Your task to perform on an android device: set the timer Image 0: 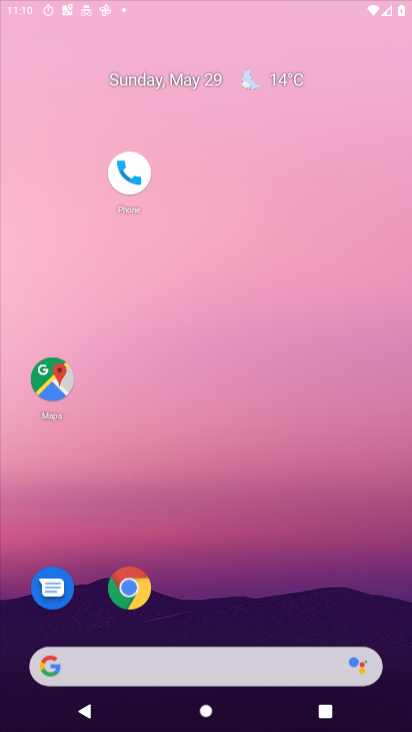
Step 0: drag from (276, 336) to (276, 166)
Your task to perform on an android device: set the timer Image 1: 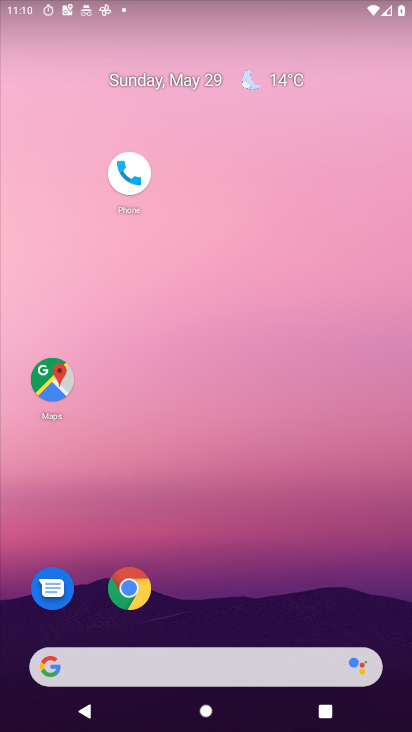
Step 1: drag from (245, 685) to (190, 268)
Your task to perform on an android device: set the timer Image 2: 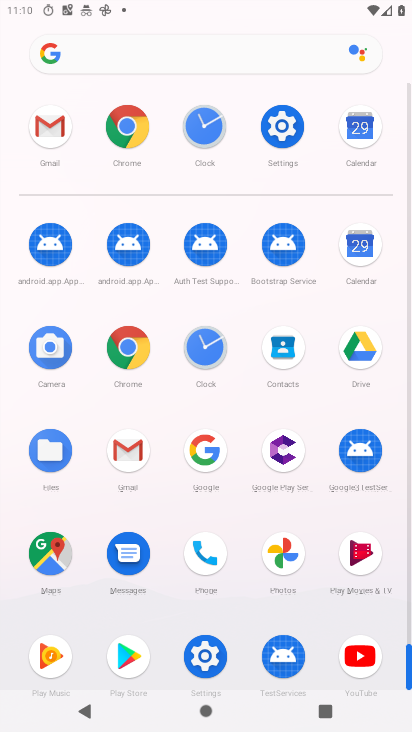
Step 2: click (195, 353)
Your task to perform on an android device: set the timer Image 3: 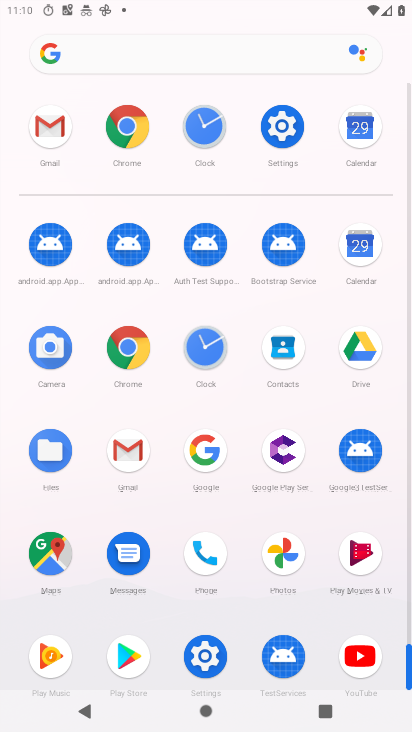
Step 3: click (195, 353)
Your task to perform on an android device: set the timer Image 4: 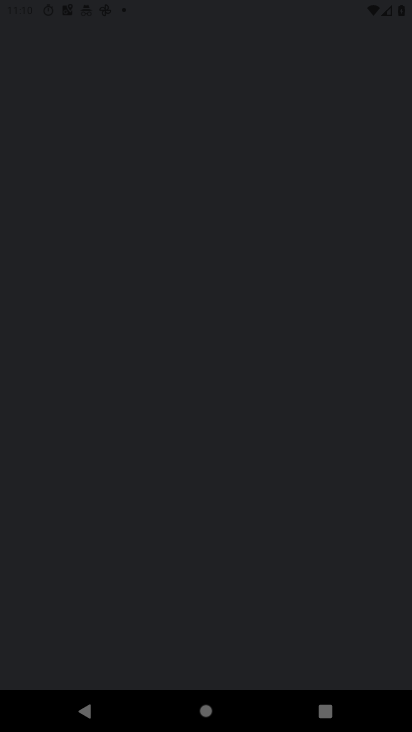
Step 4: click (196, 346)
Your task to perform on an android device: set the timer Image 5: 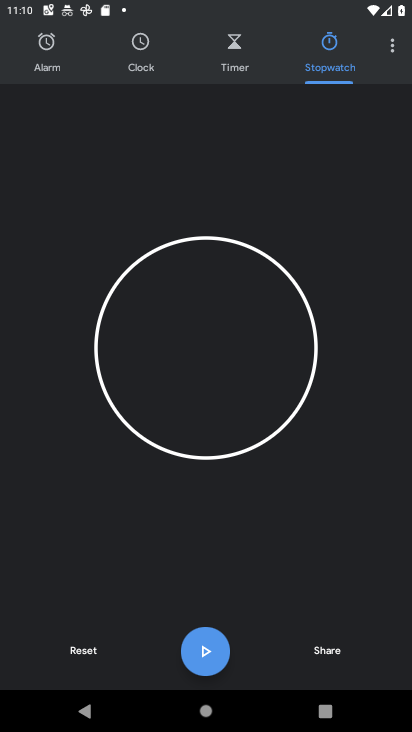
Step 5: click (230, 52)
Your task to perform on an android device: set the timer Image 6: 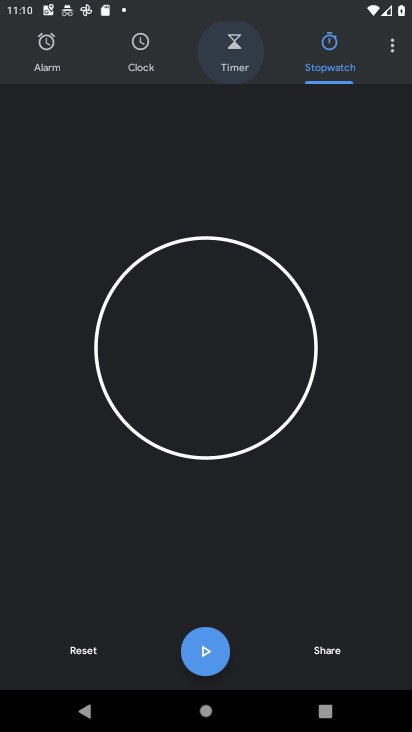
Step 6: click (230, 51)
Your task to perform on an android device: set the timer Image 7: 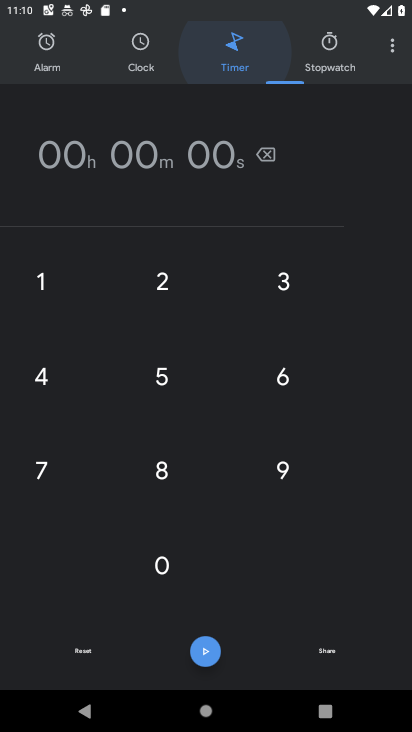
Step 7: click (233, 51)
Your task to perform on an android device: set the timer Image 8: 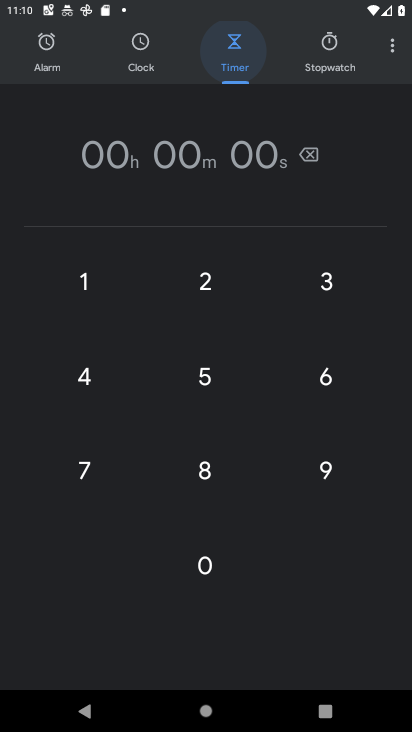
Step 8: click (233, 51)
Your task to perform on an android device: set the timer Image 9: 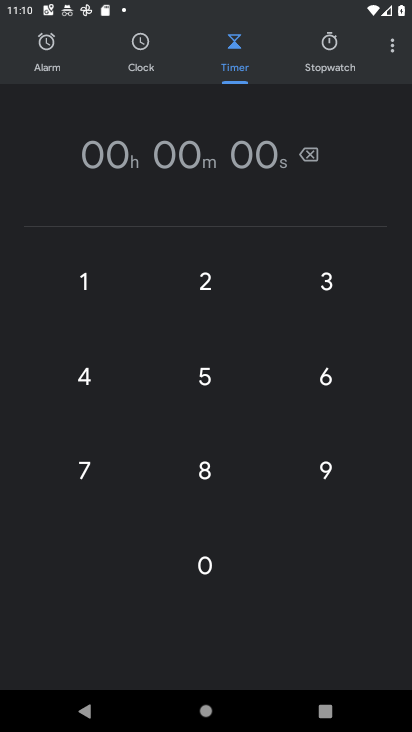
Step 9: click (204, 477)
Your task to perform on an android device: set the timer Image 10: 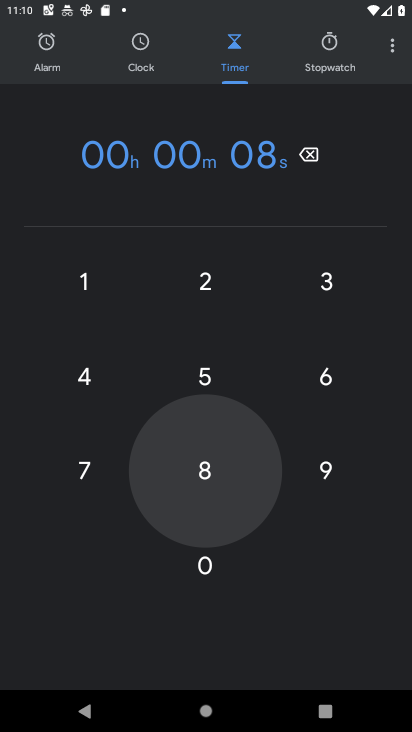
Step 10: click (210, 475)
Your task to perform on an android device: set the timer Image 11: 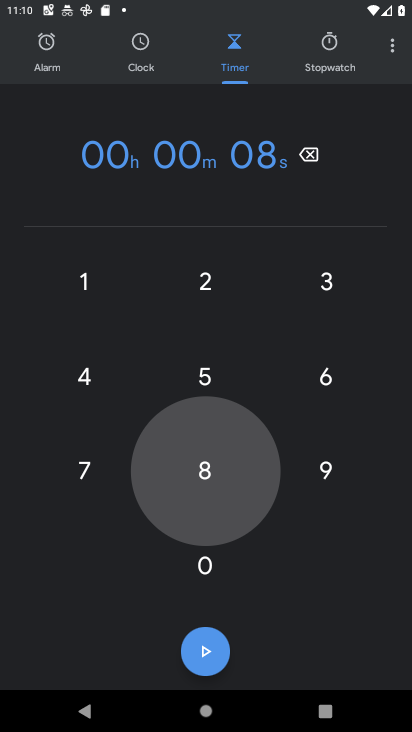
Step 11: click (210, 474)
Your task to perform on an android device: set the timer Image 12: 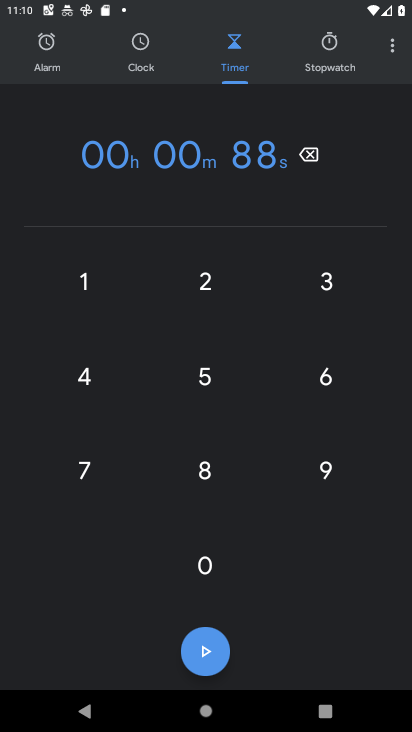
Step 12: click (209, 473)
Your task to perform on an android device: set the timer Image 13: 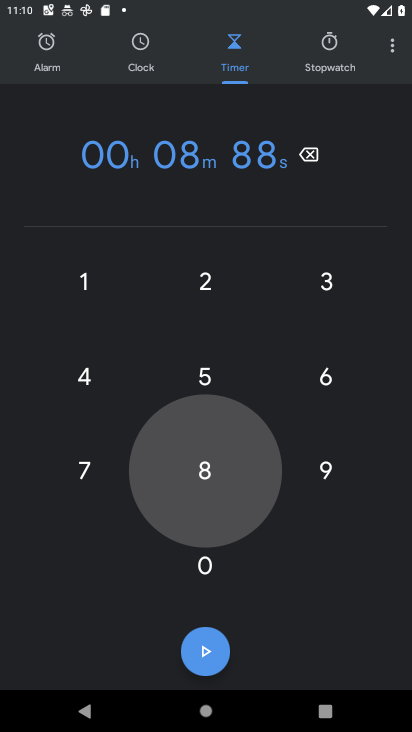
Step 13: click (209, 473)
Your task to perform on an android device: set the timer Image 14: 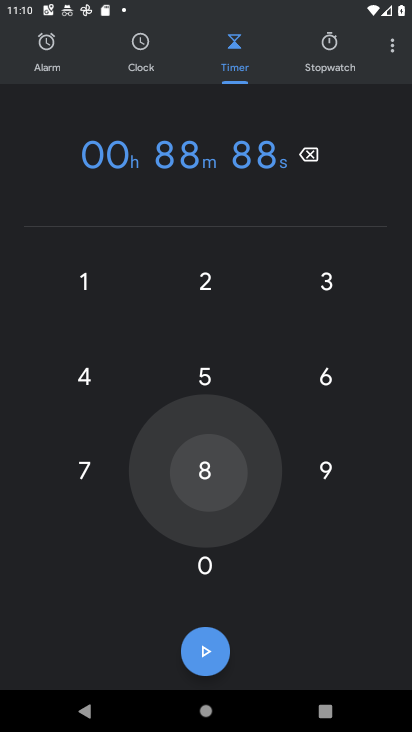
Step 14: click (209, 473)
Your task to perform on an android device: set the timer Image 15: 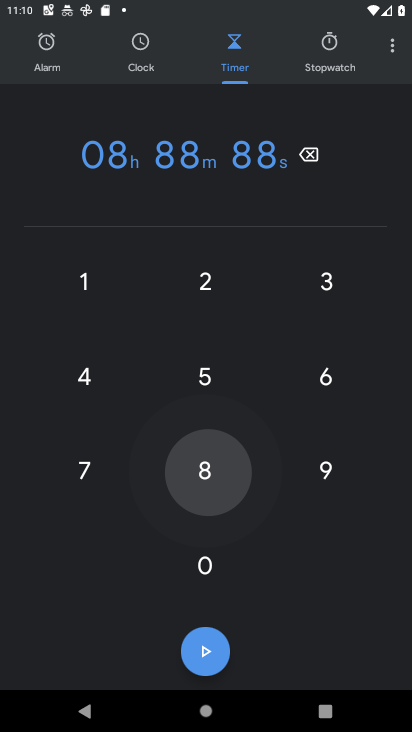
Step 15: click (208, 473)
Your task to perform on an android device: set the timer Image 16: 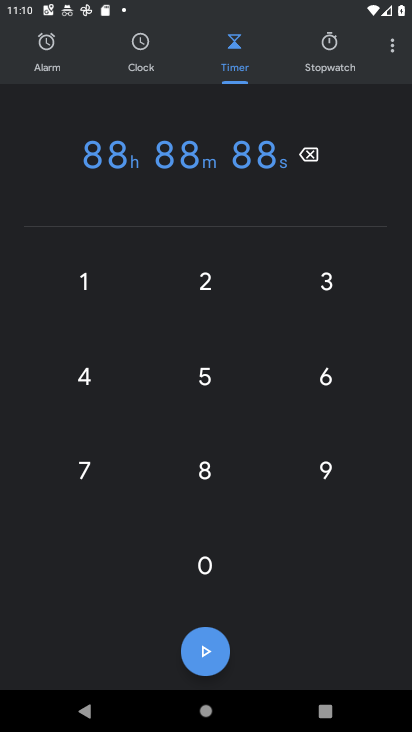
Step 16: click (193, 658)
Your task to perform on an android device: set the timer Image 17: 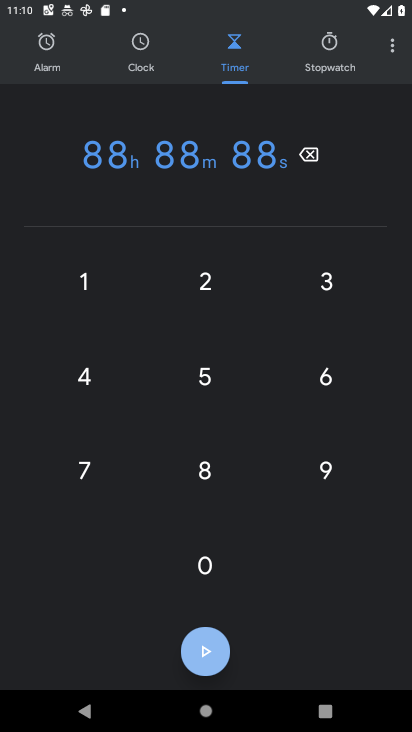
Step 17: click (203, 644)
Your task to perform on an android device: set the timer Image 18: 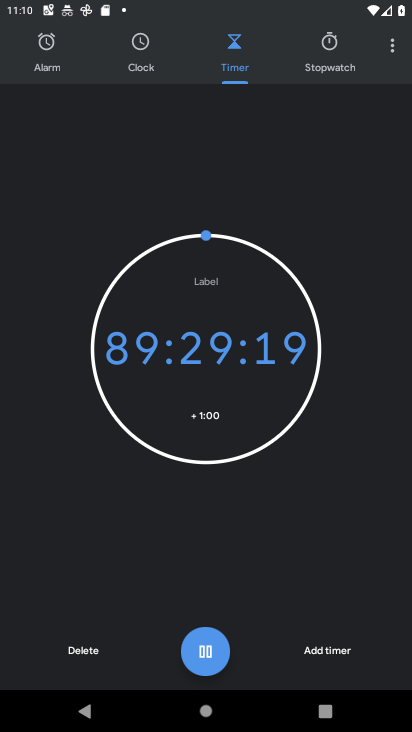
Step 18: click (199, 657)
Your task to perform on an android device: set the timer Image 19: 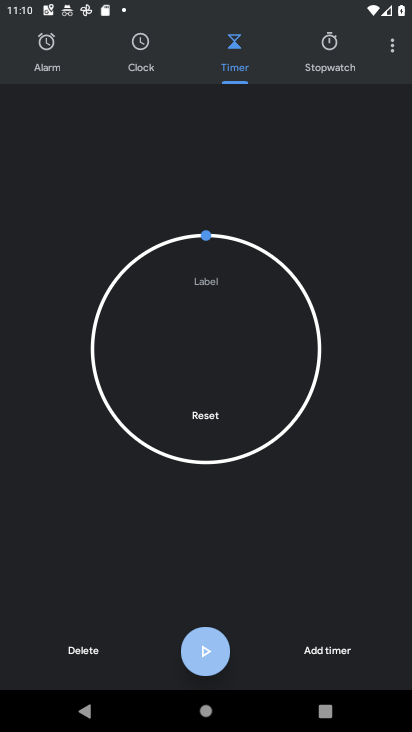
Step 19: click (200, 655)
Your task to perform on an android device: set the timer Image 20: 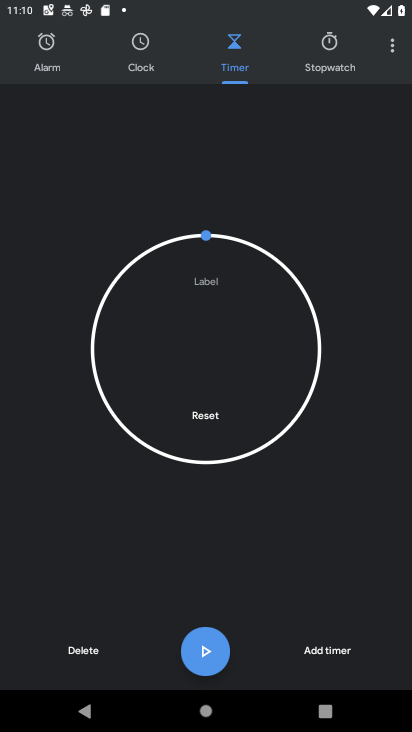
Step 20: click (200, 654)
Your task to perform on an android device: set the timer Image 21: 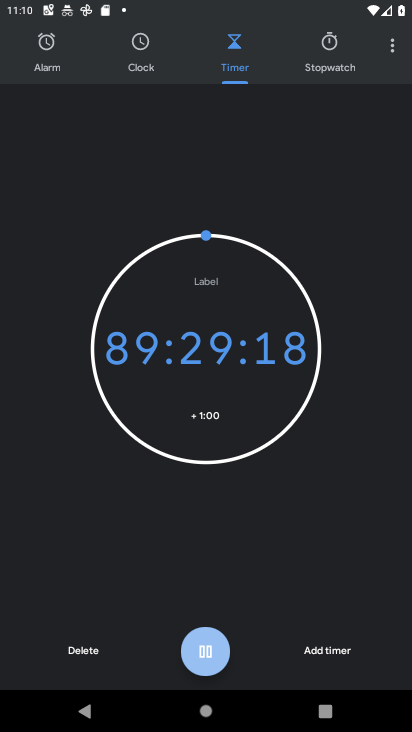
Step 21: click (202, 651)
Your task to perform on an android device: set the timer Image 22: 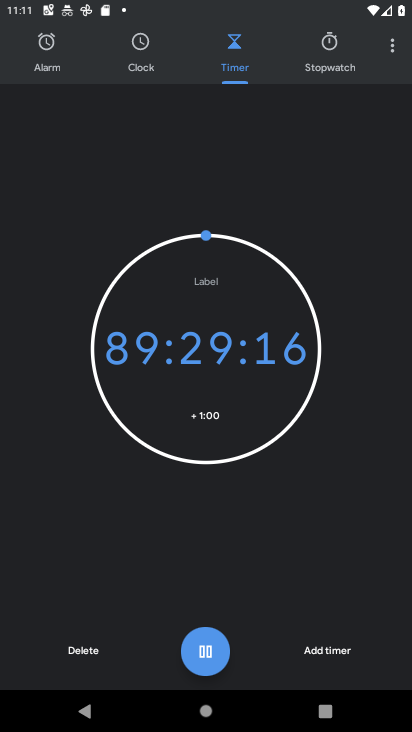
Step 22: click (207, 650)
Your task to perform on an android device: set the timer Image 23: 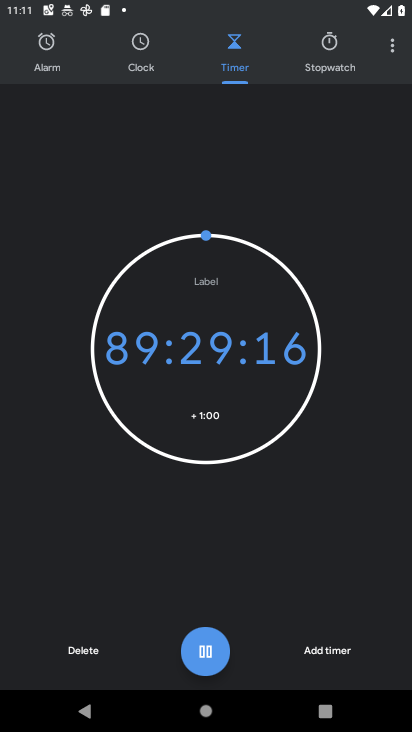
Step 23: click (204, 650)
Your task to perform on an android device: set the timer Image 24: 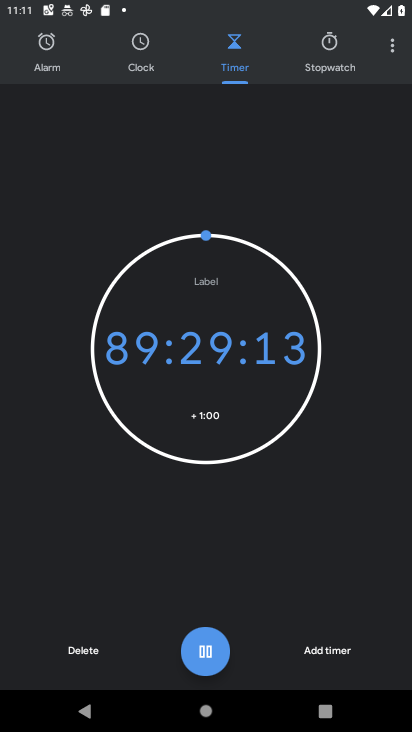
Step 24: click (209, 650)
Your task to perform on an android device: set the timer Image 25: 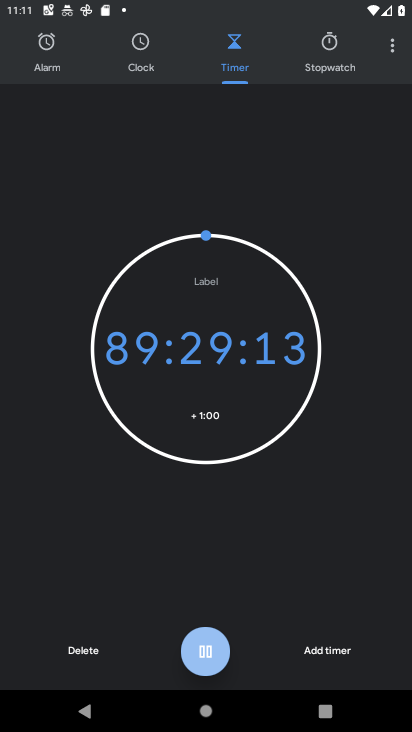
Step 25: click (208, 651)
Your task to perform on an android device: set the timer Image 26: 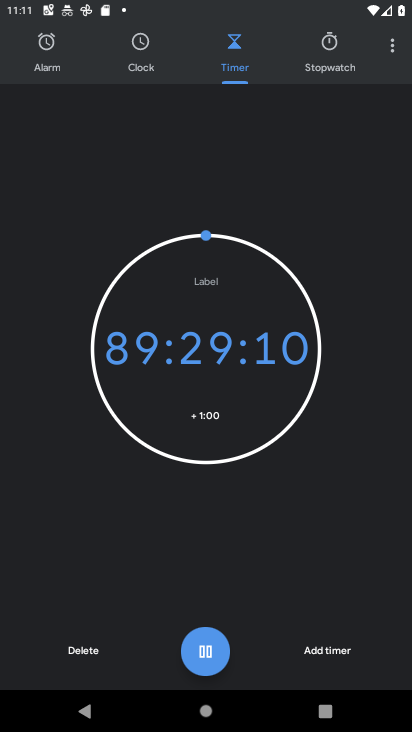
Step 26: click (207, 654)
Your task to perform on an android device: set the timer Image 27: 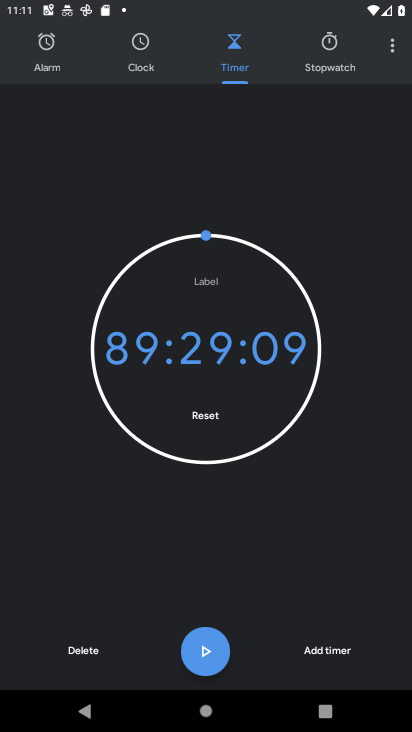
Step 27: task complete